Your task to perform on an android device: turn off location history Image 0: 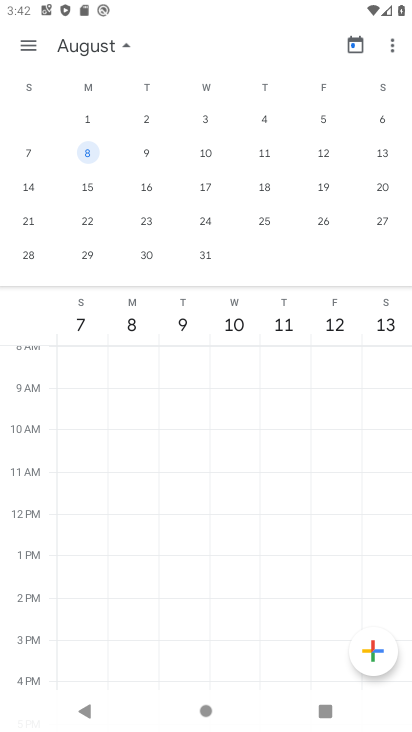
Step 0: press home button
Your task to perform on an android device: turn off location history Image 1: 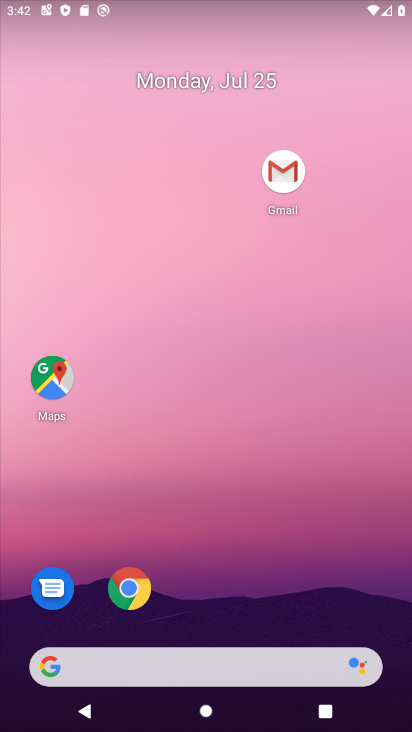
Step 1: drag from (232, 582) to (199, 111)
Your task to perform on an android device: turn off location history Image 2: 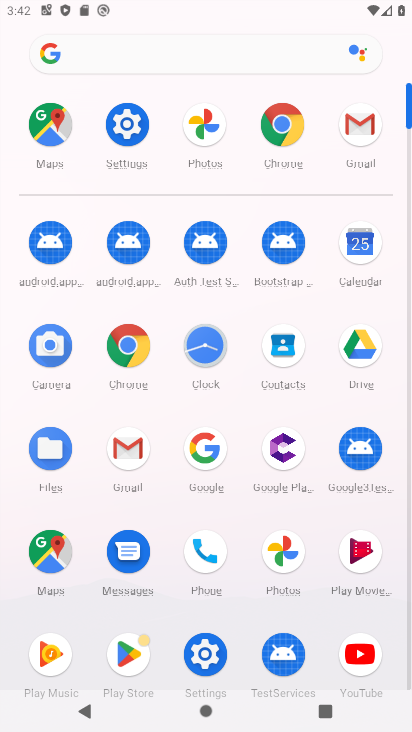
Step 2: click (133, 123)
Your task to perform on an android device: turn off location history Image 3: 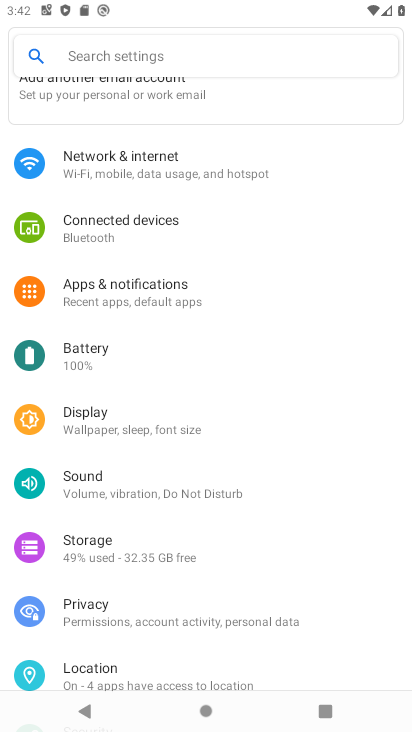
Step 3: drag from (162, 479) to (207, 247)
Your task to perform on an android device: turn off location history Image 4: 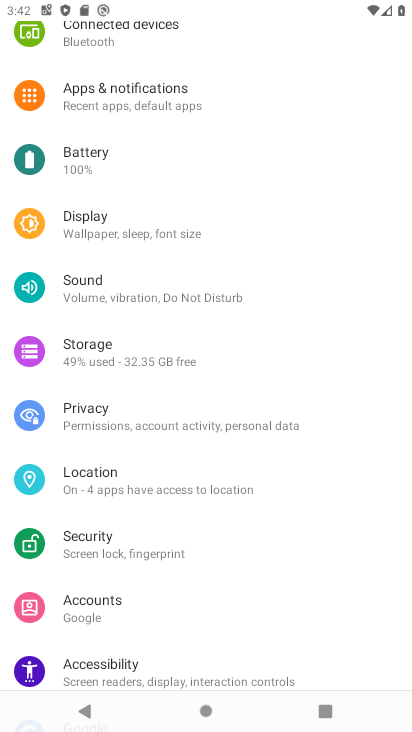
Step 4: click (99, 479)
Your task to perform on an android device: turn off location history Image 5: 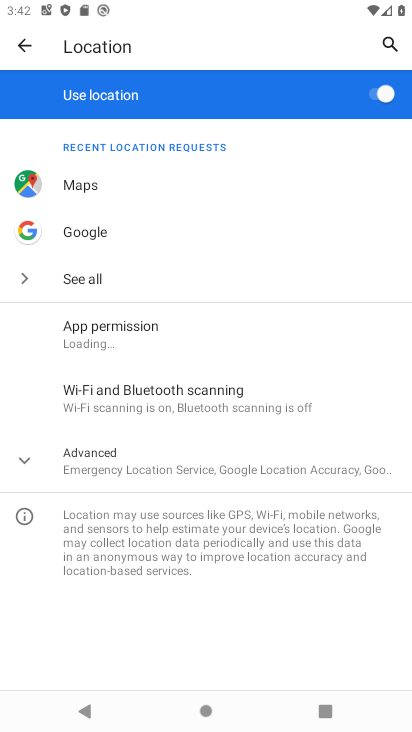
Step 5: click (134, 465)
Your task to perform on an android device: turn off location history Image 6: 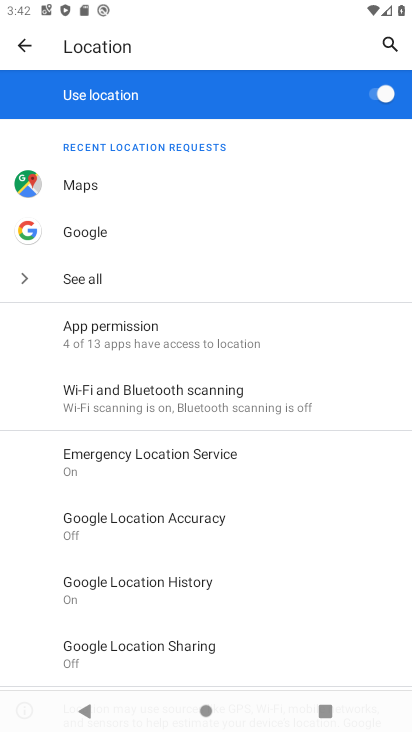
Step 6: click (157, 583)
Your task to perform on an android device: turn off location history Image 7: 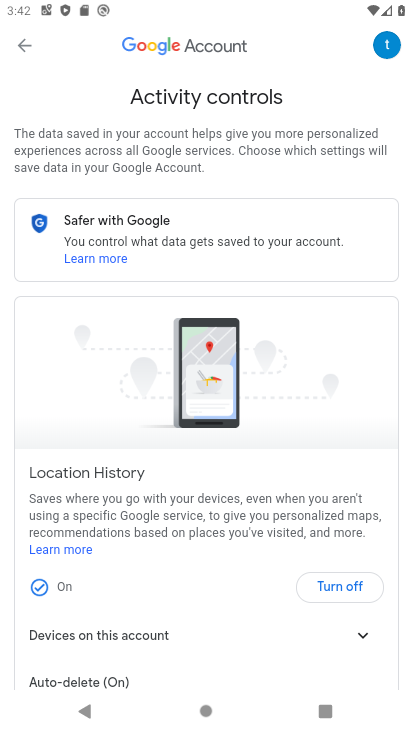
Step 7: click (343, 582)
Your task to perform on an android device: turn off location history Image 8: 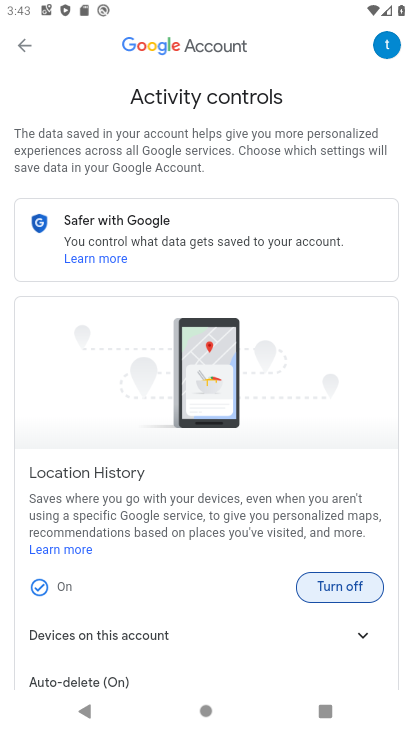
Step 8: click (370, 592)
Your task to perform on an android device: turn off location history Image 9: 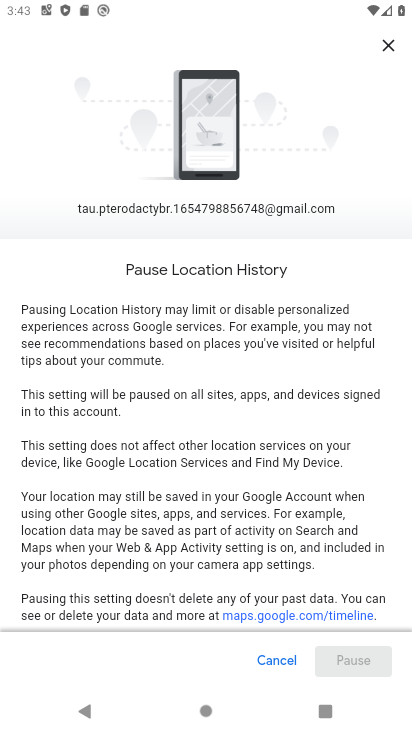
Step 9: drag from (302, 583) to (298, 185)
Your task to perform on an android device: turn off location history Image 10: 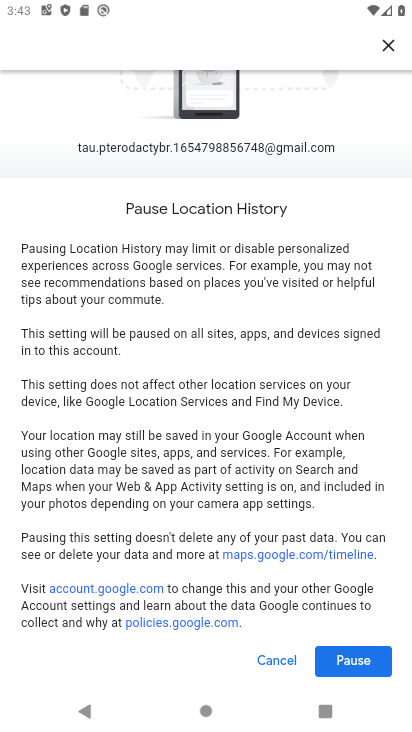
Step 10: click (353, 650)
Your task to perform on an android device: turn off location history Image 11: 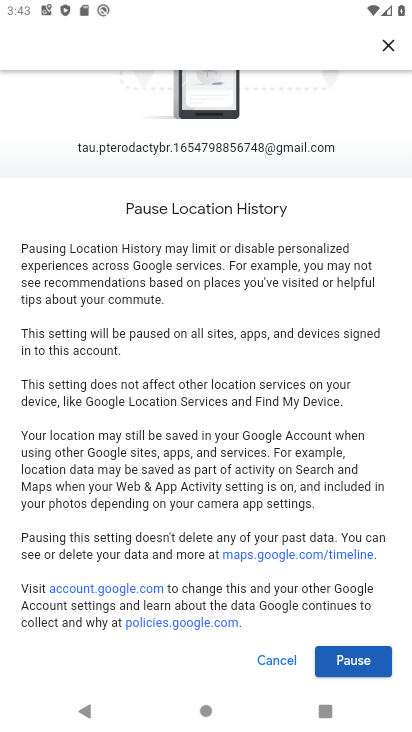
Step 11: click (366, 659)
Your task to perform on an android device: turn off location history Image 12: 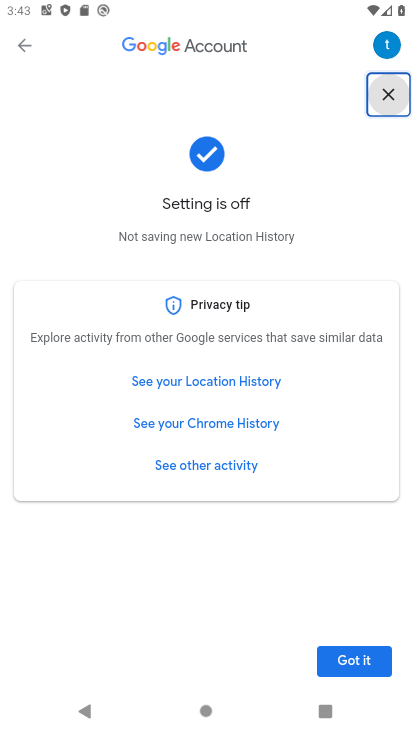
Step 12: task complete